Your task to perform on an android device: Show me the alarms in the clock app Image 0: 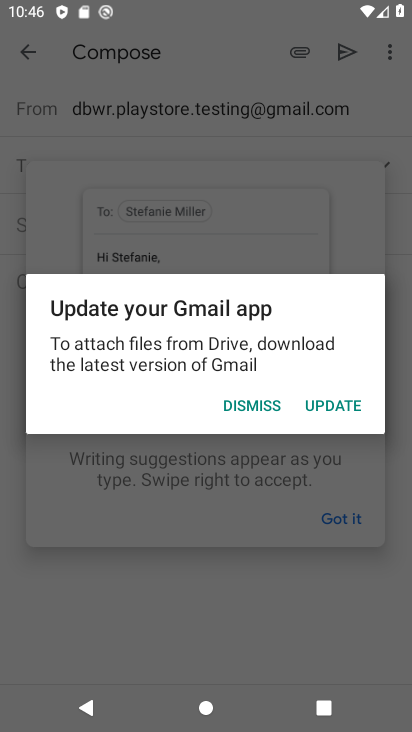
Step 0: press home button
Your task to perform on an android device: Show me the alarms in the clock app Image 1: 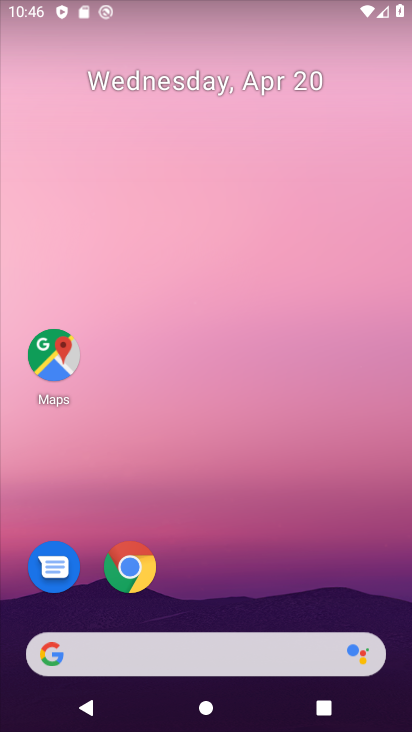
Step 1: drag from (253, 558) to (255, 99)
Your task to perform on an android device: Show me the alarms in the clock app Image 2: 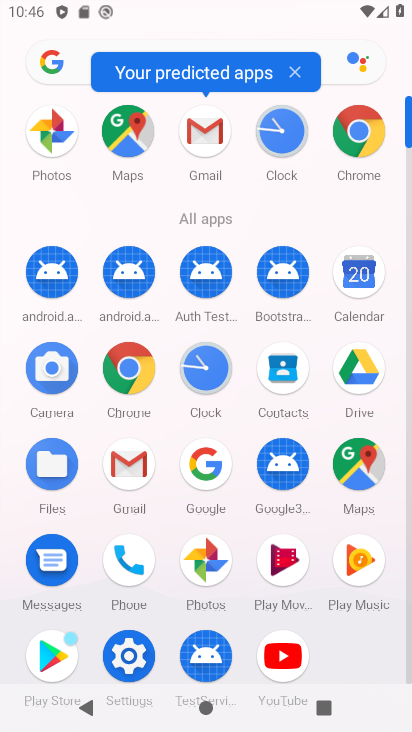
Step 2: click (210, 376)
Your task to perform on an android device: Show me the alarms in the clock app Image 3: 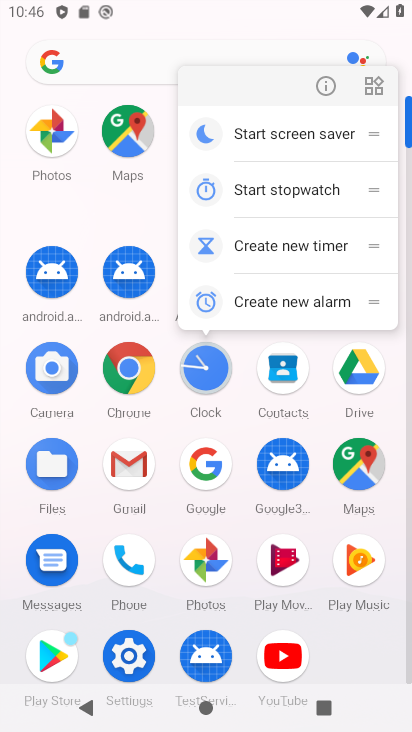
Step 3: click (210, 375)
Your task to perform on an android device: Show me the alarms in the clock app Image 4: 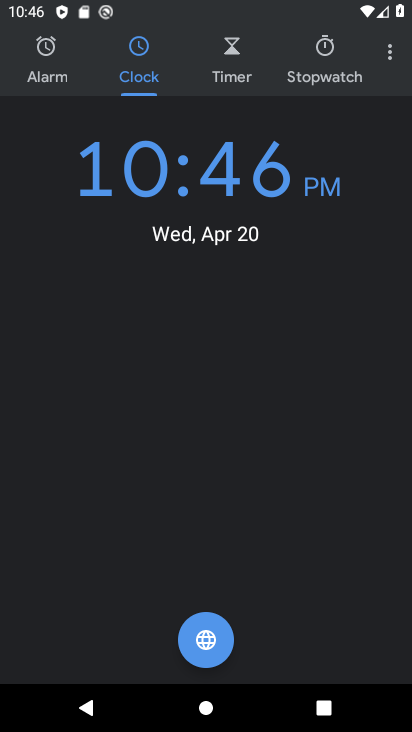
Step 4: click (49, 70)
Your task to perform on an android device: Show me the alarms in the clock app Image 5: 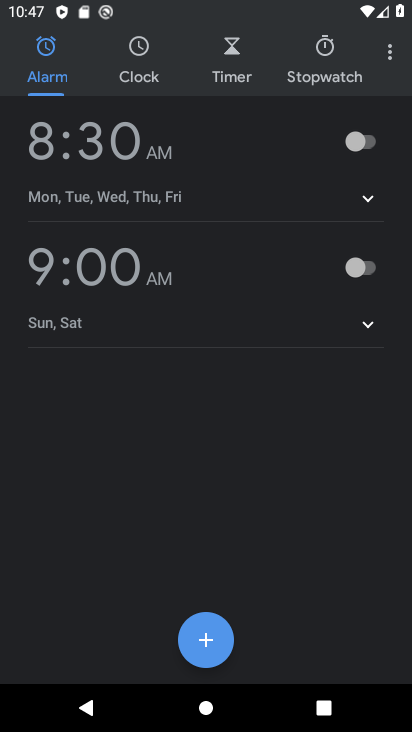
Step 5: task complete